Your task to perform on an android device: turn off sleep mode Image 0: 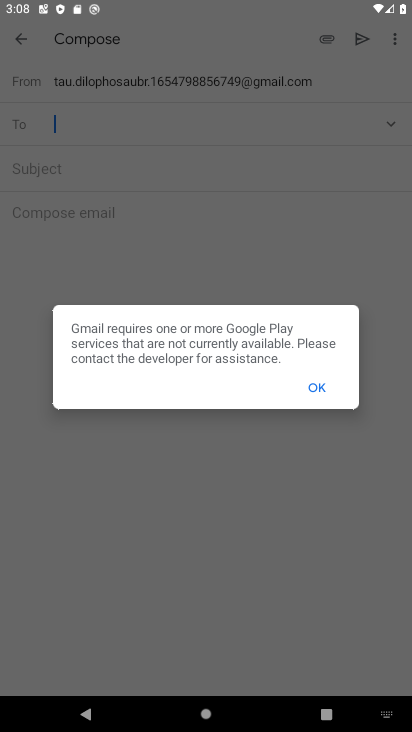
Step 0: press home button
Your task to perform on an android device: turn off sleep mode Image 1: 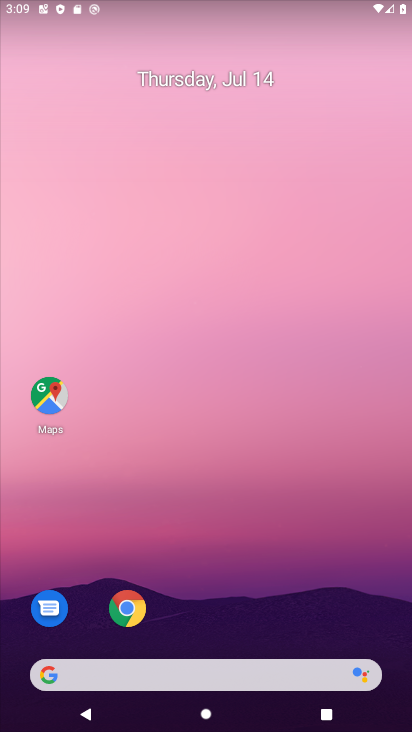
Step 1: drag from (8, 687) to (195, 267)
Your task to perform on an android device: turn off sleep mode Image 2: 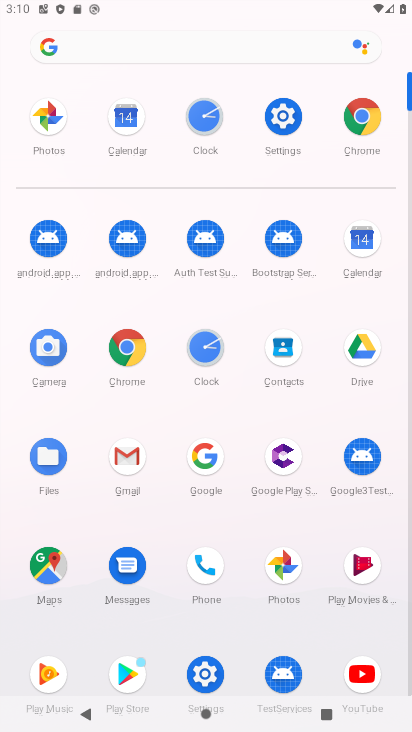
Step 2: click (287, 124)
Your task to perform on an android device: turn off sleep mode Image 3: 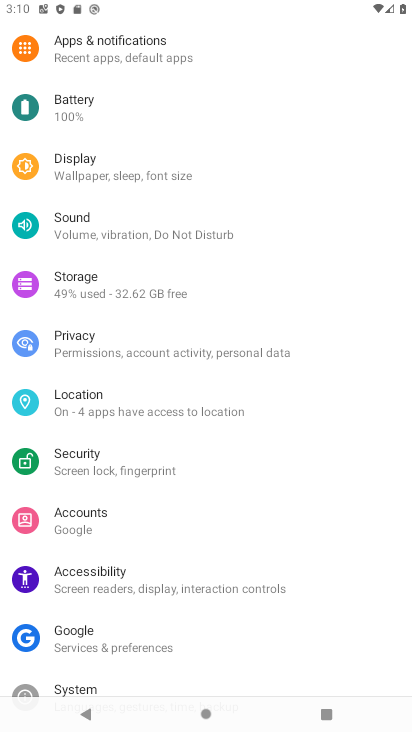
Step 3: task complete